Your task to perform on an android device: When is my next meeting? Image 0: 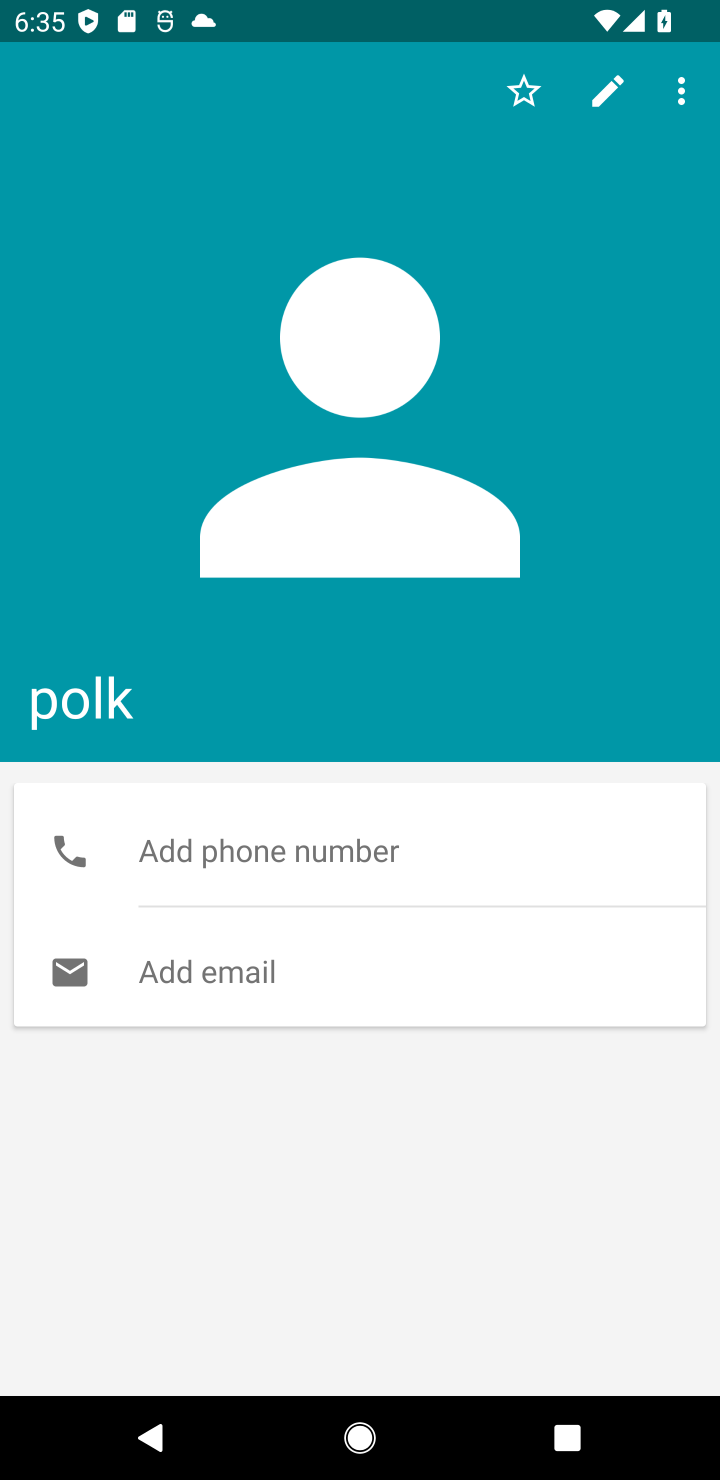
Step 0: press home button
Your task to perform on an android device: When is my next meeting? Image 1: 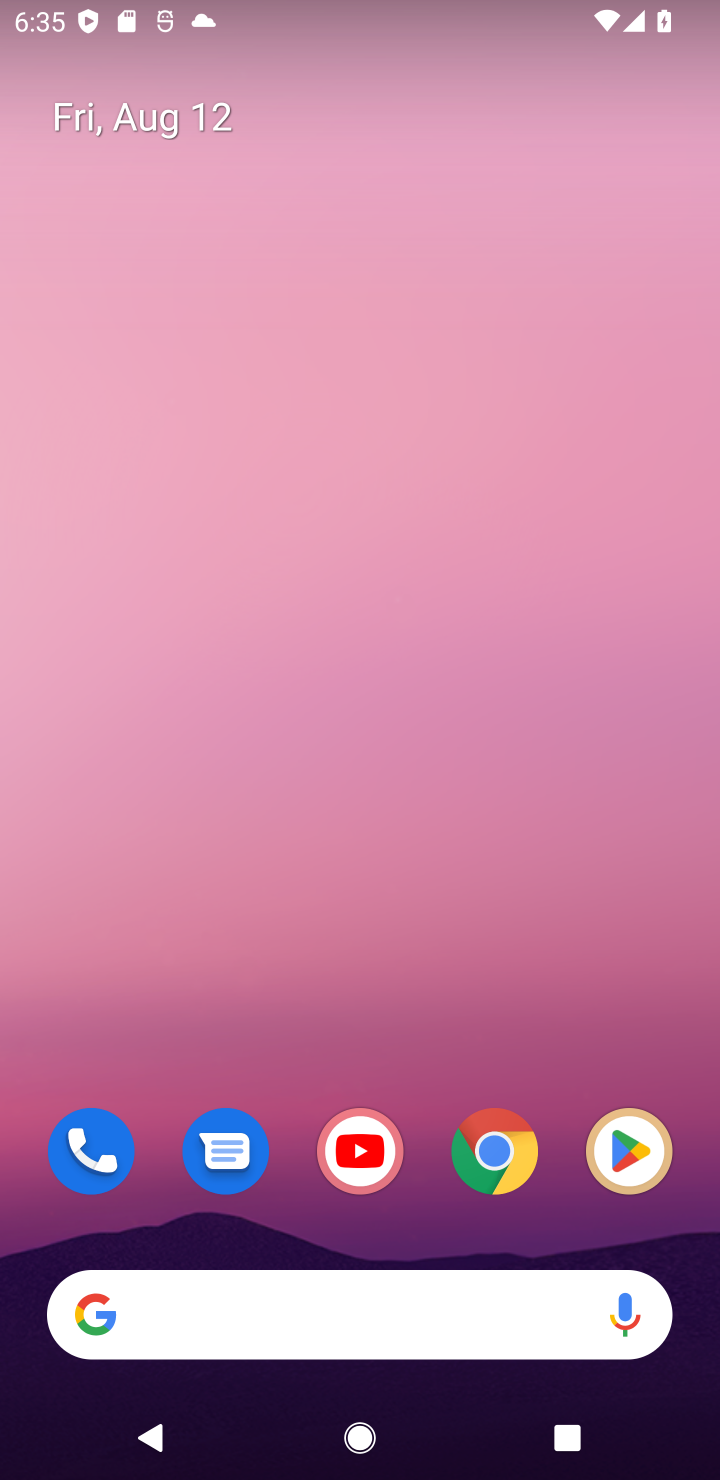
Step 1: drag from (374, 951) to (394, 0)
Your task to perform on an android device: When is my next meeting? Image 2: 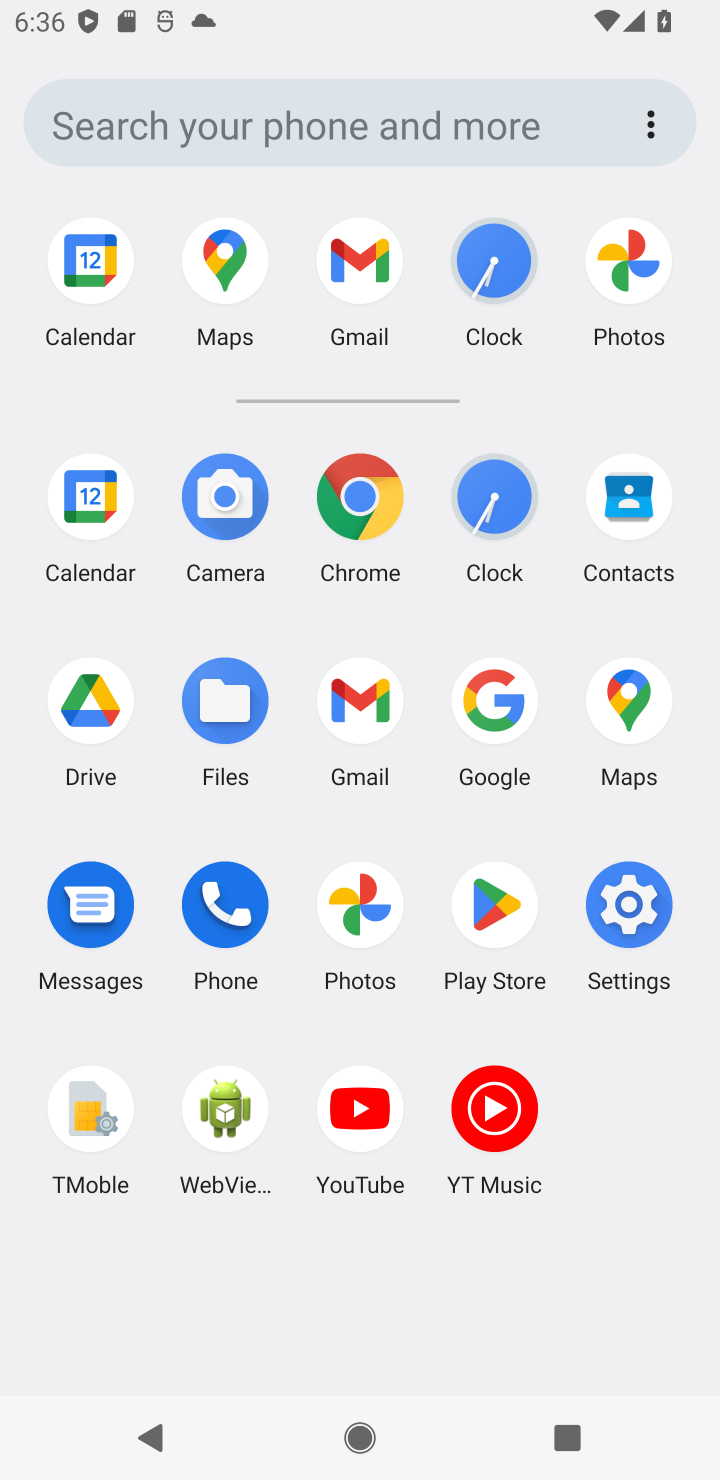
Step 2: click (98, 530)
Your task to perform on an android device: When is my next meeting? Image 3: 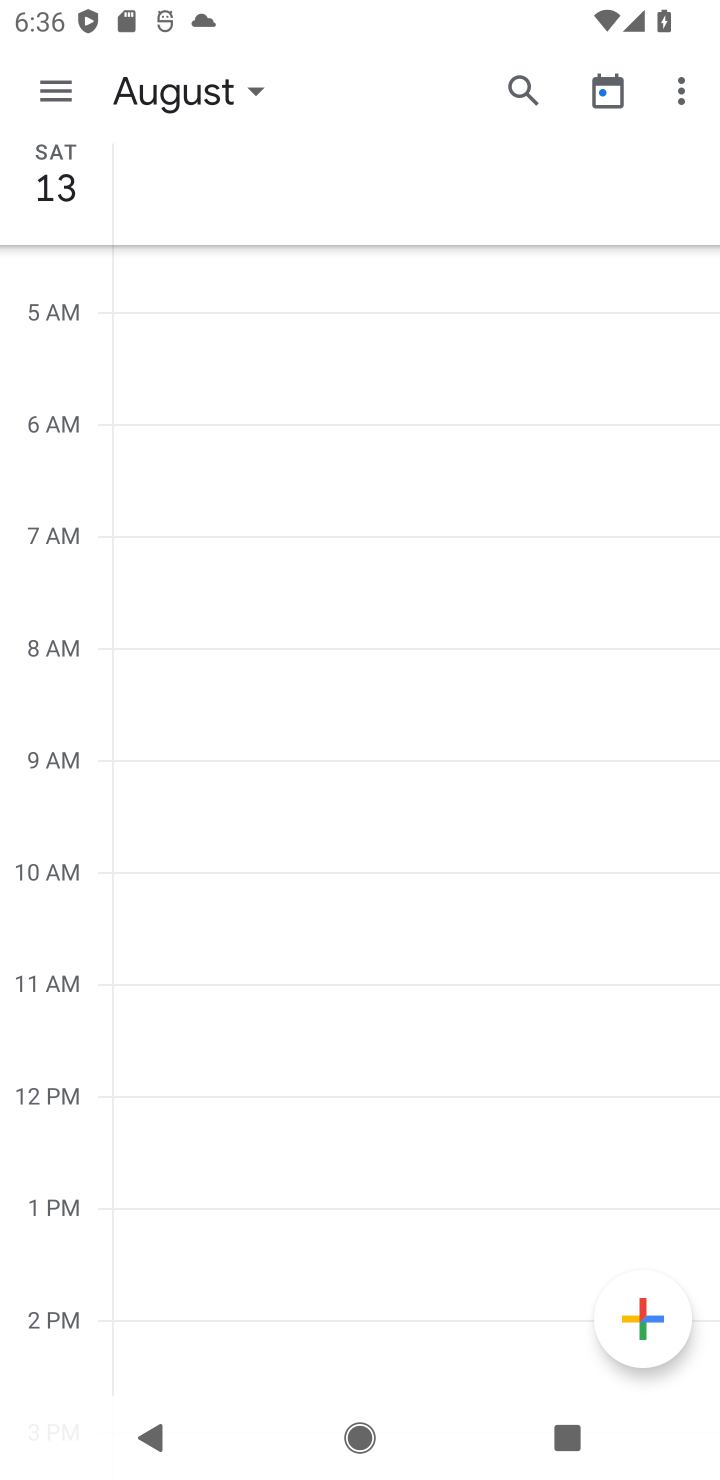
Step 3: click (68, 77)
Your task to perform on an android device: When is my next meeting? Image 4: 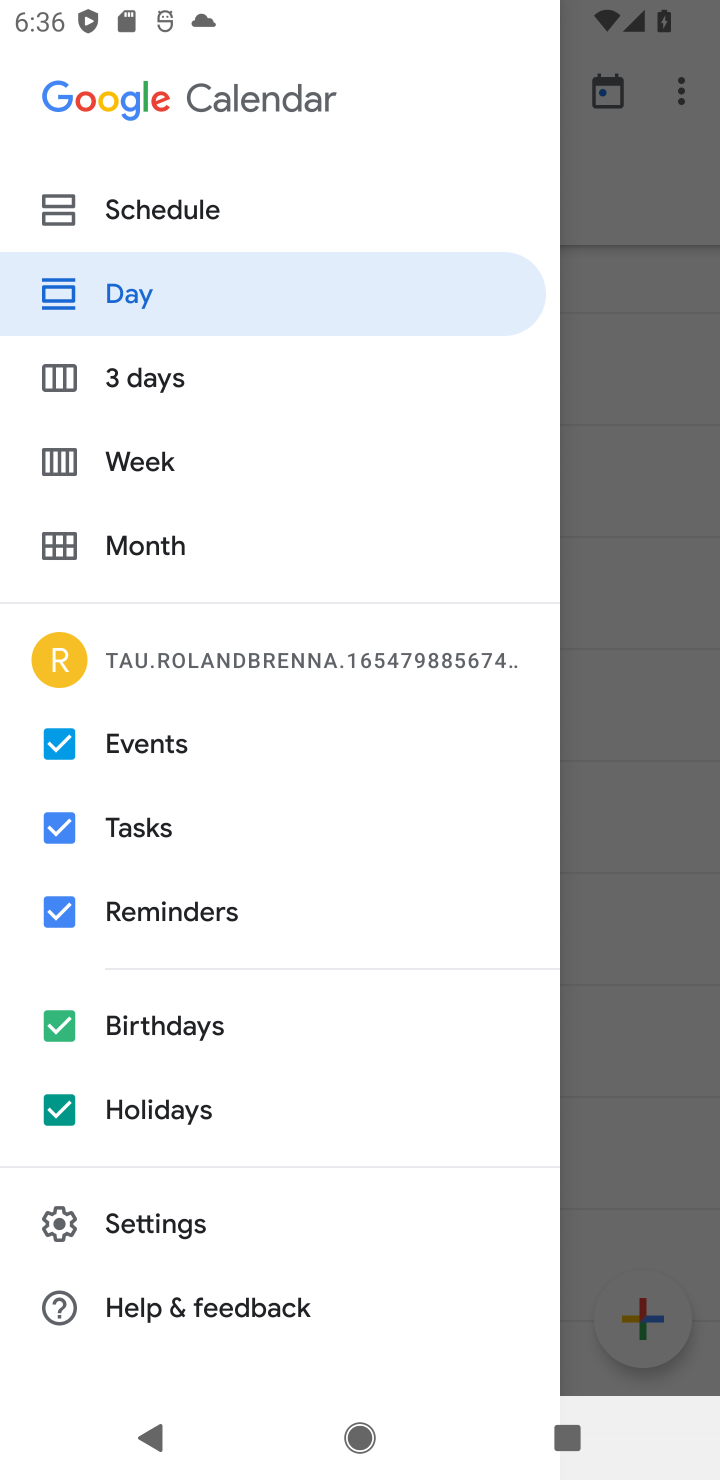
Step 4: click (149, 386)
Your task to perform on an android device: When is my next meeting? Image 5: 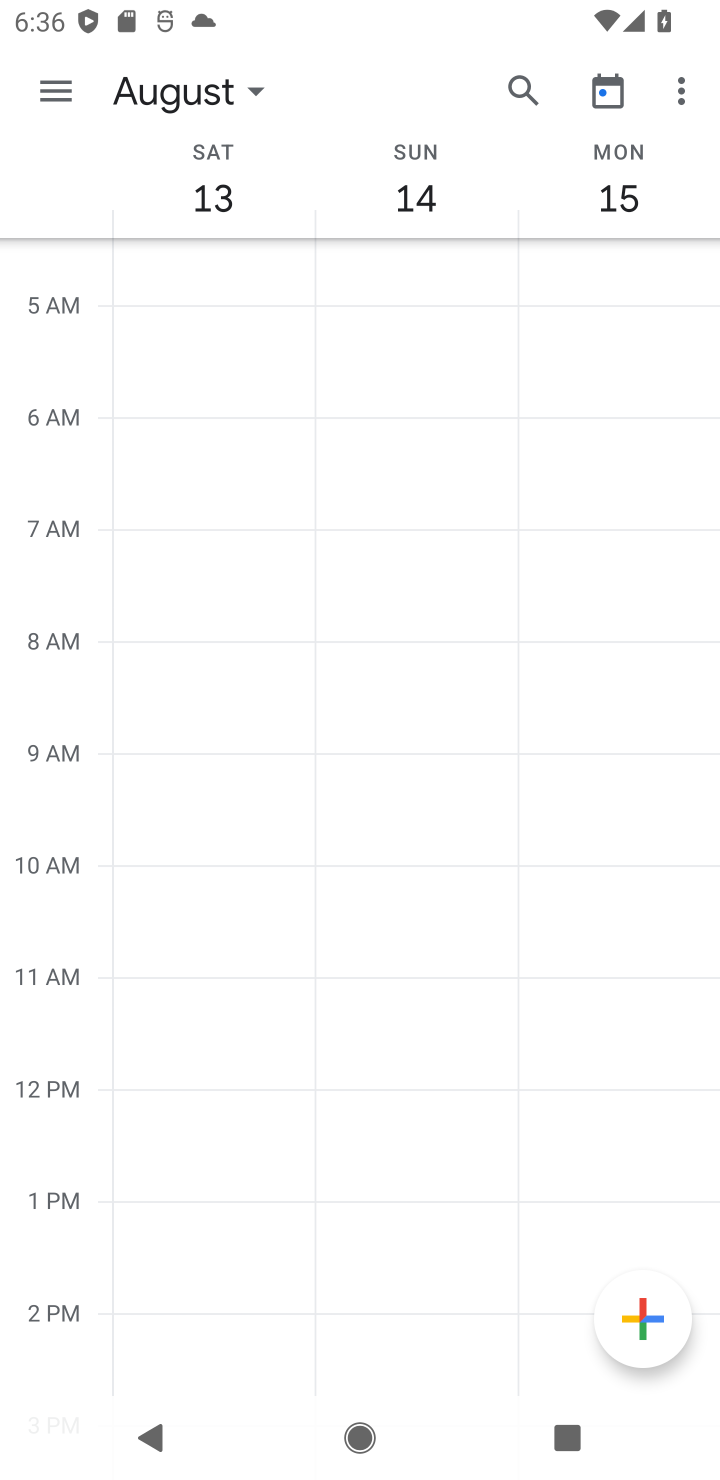
Step 5: task complete